Your task to perform on an android device: turn on the 12-hour format for clock Image 0: 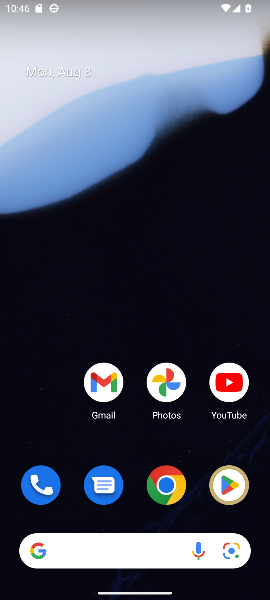
Step 0: drag from (192, 496) to (213, 89)
Your task to perform on an android device: turn on the 12-hour format for clock Image 1: 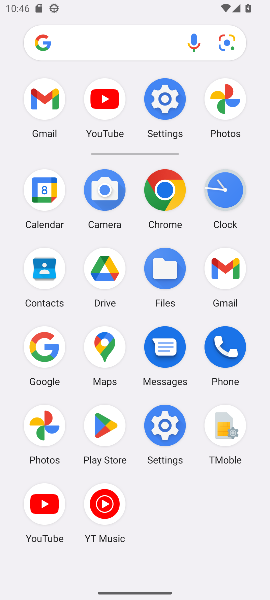
Step 1: click (229, 185)
Your task to perform on an android device: turn on the 12-hour format for clock Image 2: 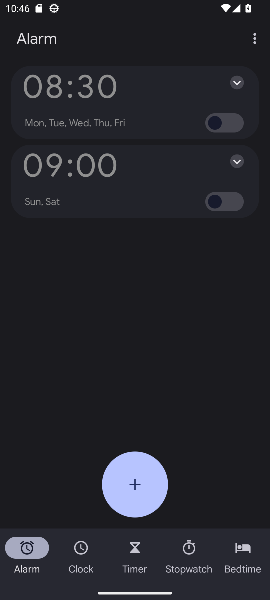
Step 2: click (251, 46)
Your task to perform on an android device: turn on the 12-hour format for clock Image 3: 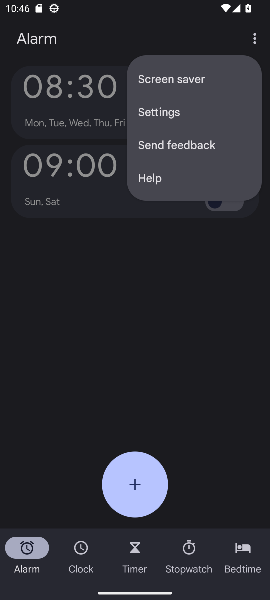
Step 3: click (181, 123)
Your task to perform on an android device: turn on the 12-hour format for clock Image 4: 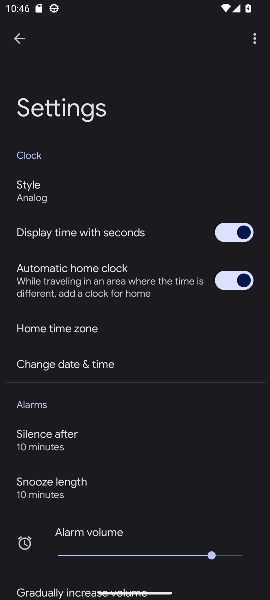
Step 4: click (80, 364)
Your task to perform on an android device: turn on the 12-hour format for clock Image 5: 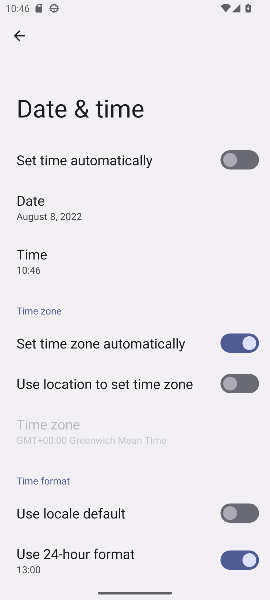
Step 5: drag from (133, 450) to (172, 101)
Your task to perform on an android device: turn on the 12-hour format for clock Image 6: 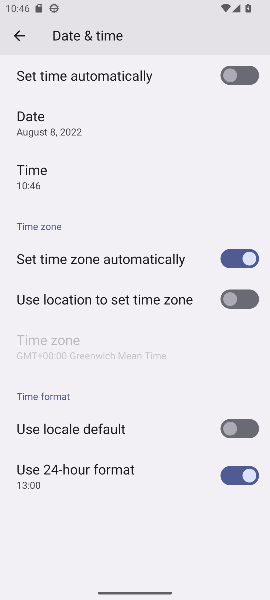
Step 6: click (239, 435)
Your task to perform on an android device: turn on the 12-hour format for clock Image 7: 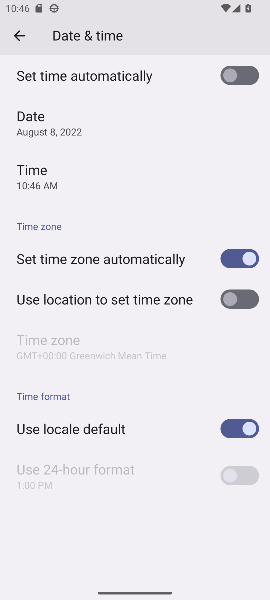
Step 7: task complete